Your task to perform on an android device: Open Google Chrome and click the shortcut for Amazon.com Image 0: 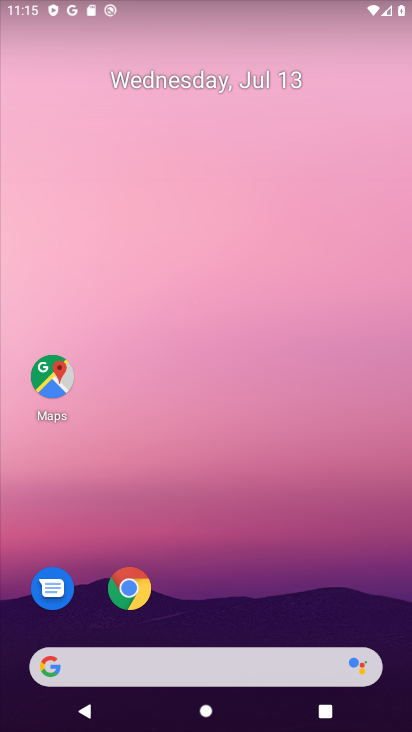
Step 0: click (124, 587)
Your task to perform on an android device: Open Google Chrome and click the shortcut for Amazon.com Image 1: 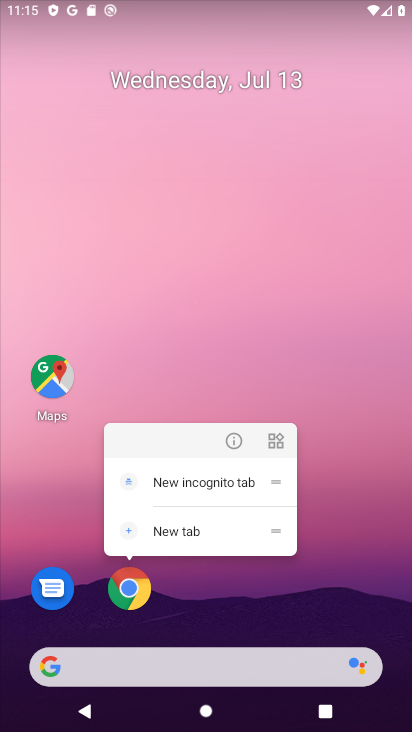
Step 1: click (129, 591)
Your task to perform on an android device: Open Google Chrome and click the shortcut for Amazon.com Image 2: 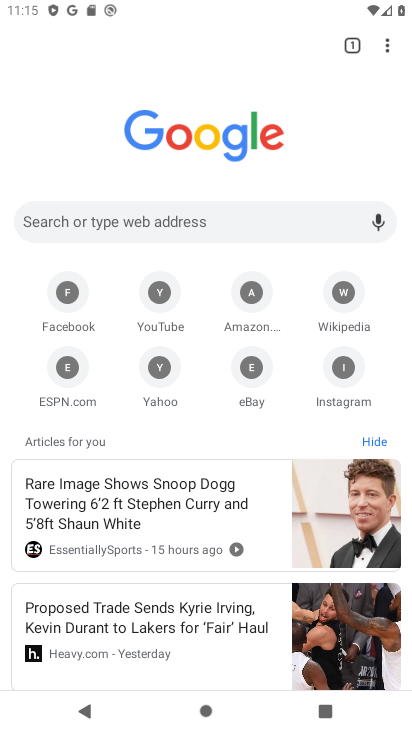
Step 2: click (254, 292)
Your task to perform on an android device: Open Google Chrome and click the shortcut for Amazon.com Image 3: 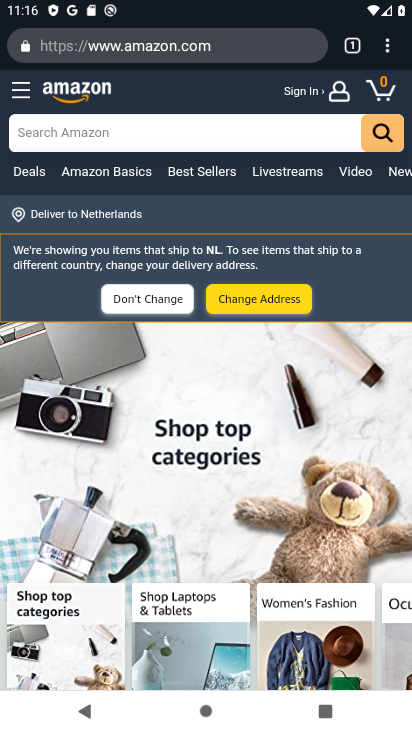
Step 3: task complete